Your task to perform on an android device: all mails in gmail Image 0: 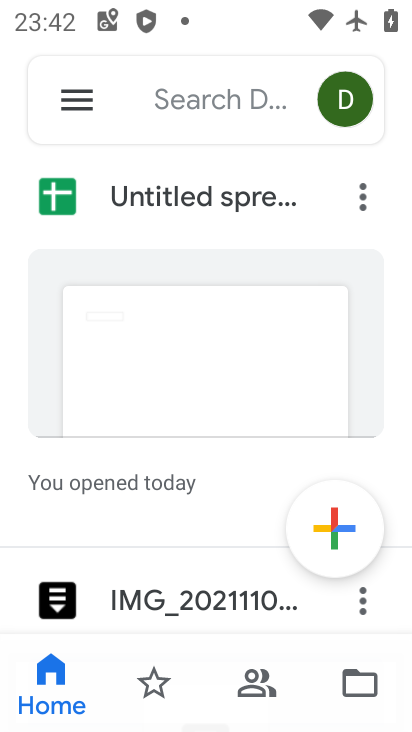
Step 0: click (71, 87)
Your task to perform on an android device: all mails in gmail Image 1: 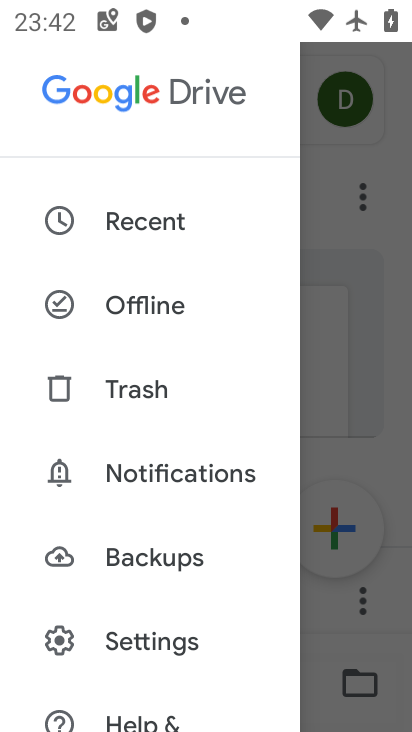
Step 1: click (363, 371)
Your task to perform on an android device: all mails in gmail Image 2: 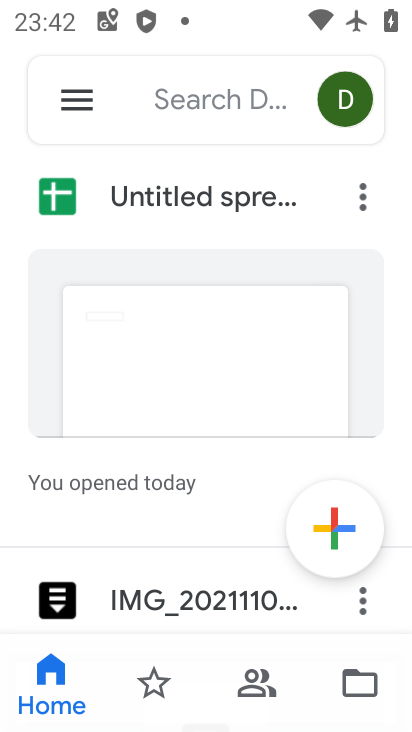
Step 2: press home button
Your task to perform on an android device: all mails in gmail Image 3: 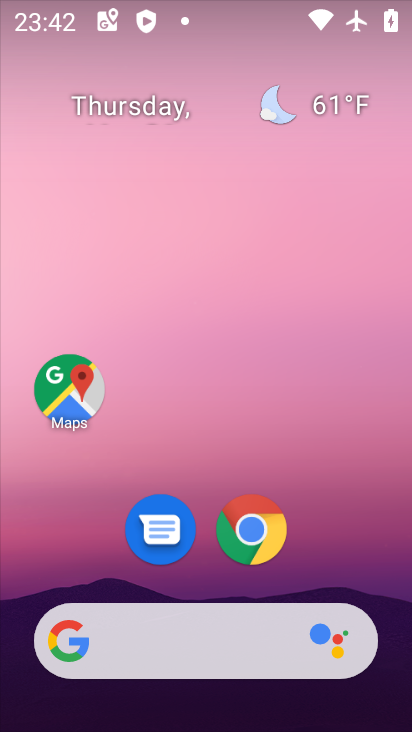
Step 3: drag from (340, 547) to (298, 145)
Your task to perform on an android device: all mails in gmail Image 4: 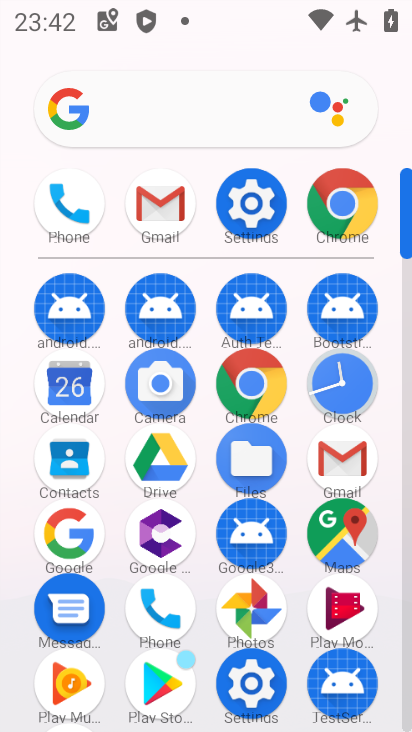
Step 4: click (155, 233)
Your task to perform on an android device: all mails in gmail Image 5: 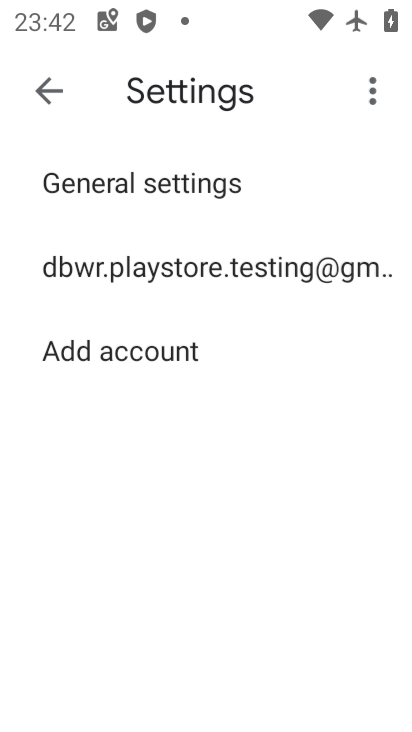
Step 5: task complete